Your task to perform on an android device: Open maps Image 0: 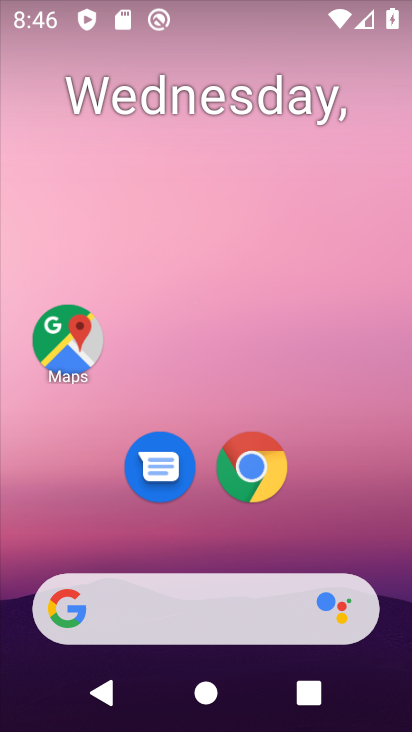
Step 0: drag from (272, 7) to (254, 529)
Your task to perform on an android device: Open maps Image 1: 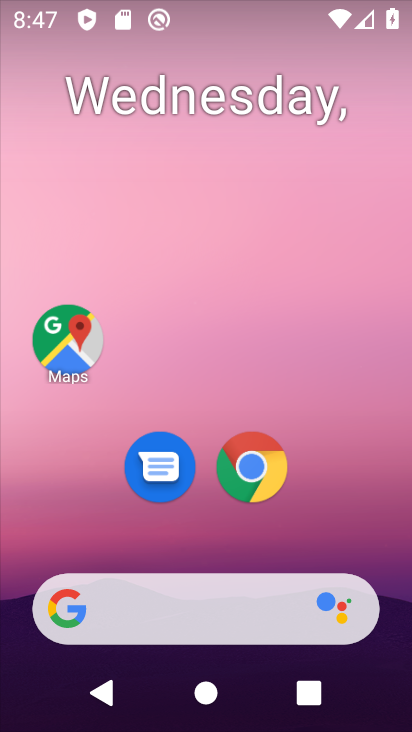
Step 1: drag from (321, 368) to (300, 30)
Your task to perform on an android device: Open maps Image 2: 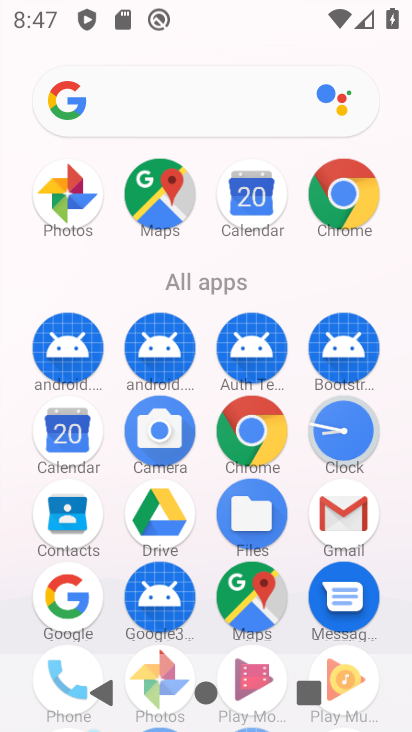
Step 2: click (167, 195)
Your task to perform on an android device: Open maps Image 3: 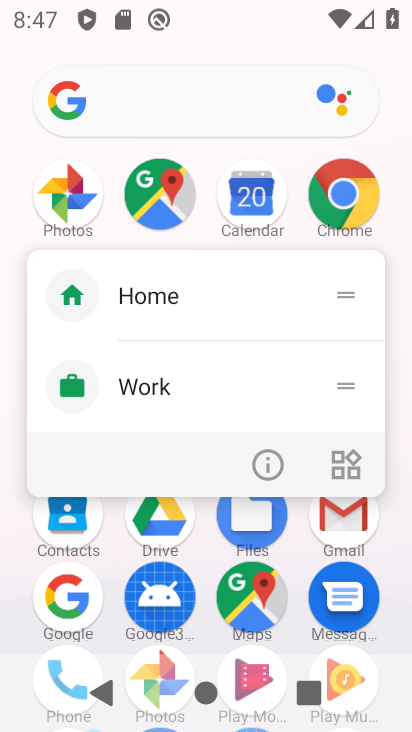
Step 3: click (164, 201)
Your task to perform on an android device: Open maps Image 4: 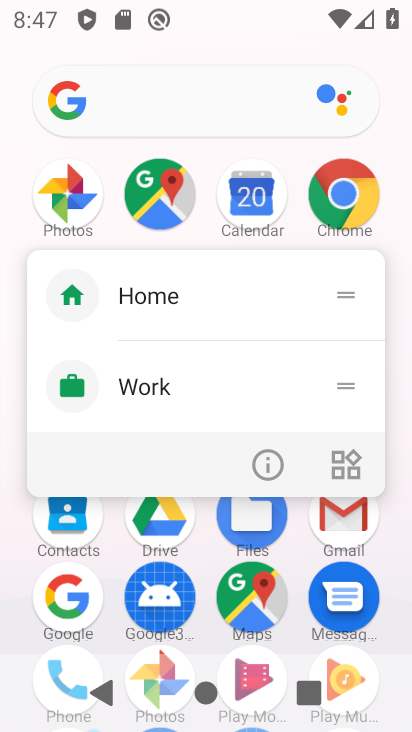
Step 4: click (239, 594)
Your task to perform on an android device: Open maps Image 5: 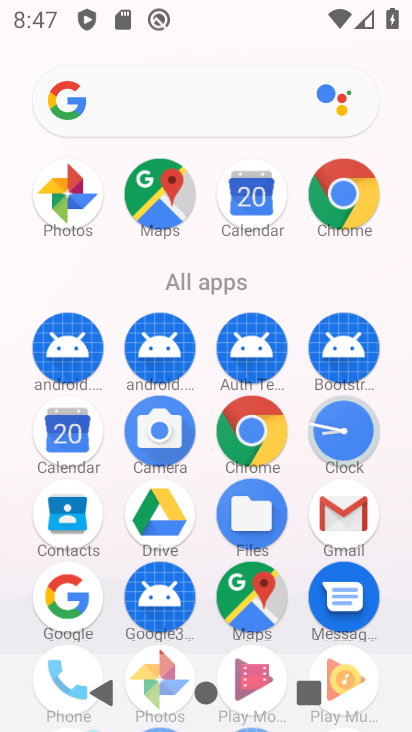
Step 5: click (250, 600)
Your task to perform on an android device: Open maps Image 6: 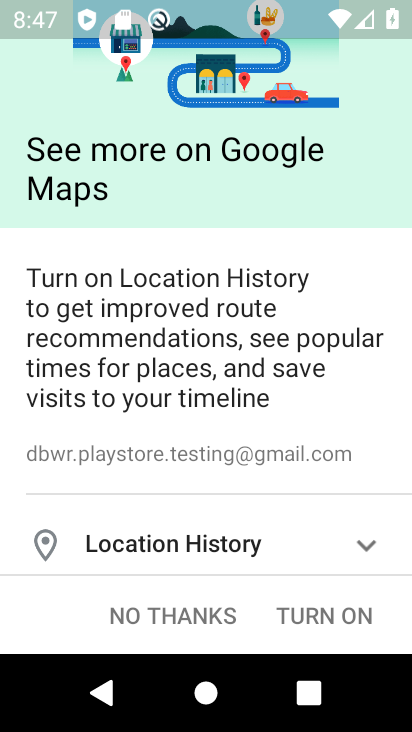
Step 6: click (199, 617)
Your task to perform on an android device: Open maps Image 7: 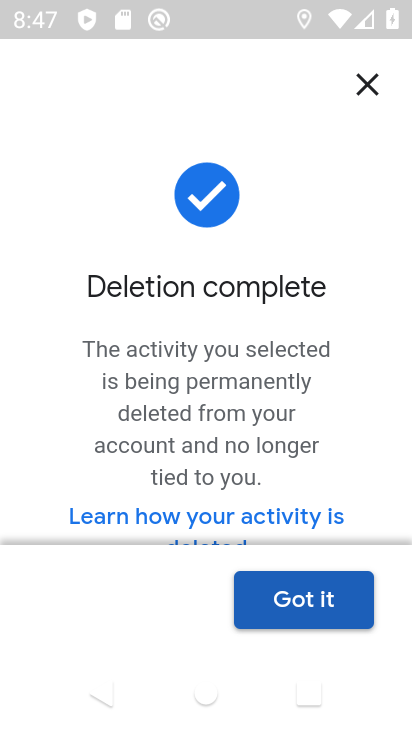
Step 7: click (362, 86)
Your task to perform on an android device: Open maps Image 8: 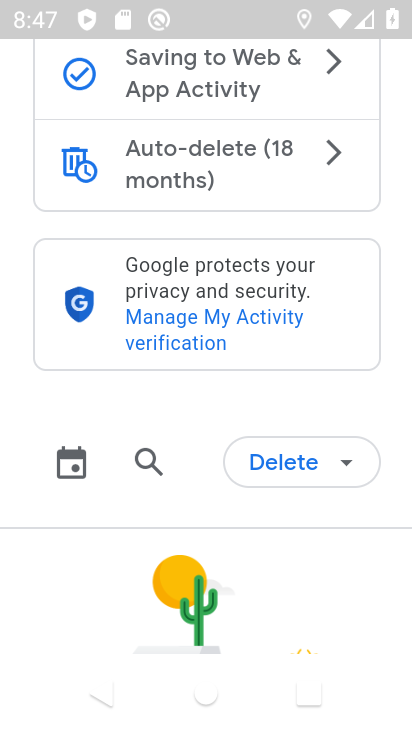
Step 8: press back button
Your task to perform on an android device: Open maps Image 9: 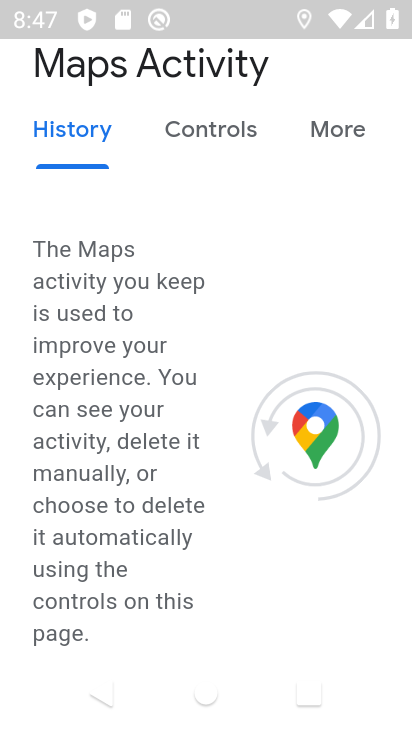
Step 9: drag from (243, 531) to (247, 0)
Your task to perform on an android device: Open maps Image 10: 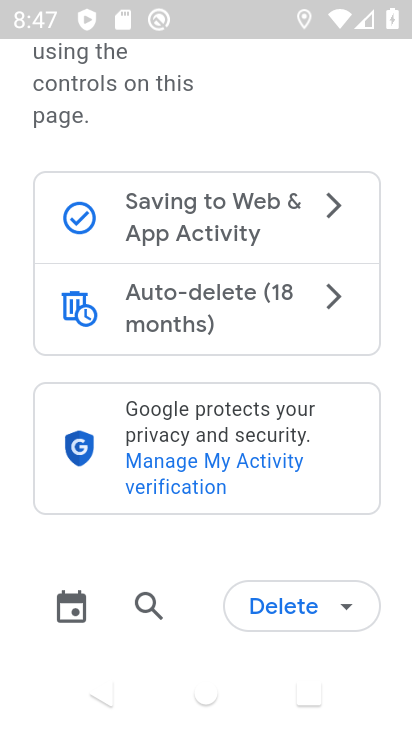
Step 10: press back button
Your task to perform on an android device: Open maps Image 11: 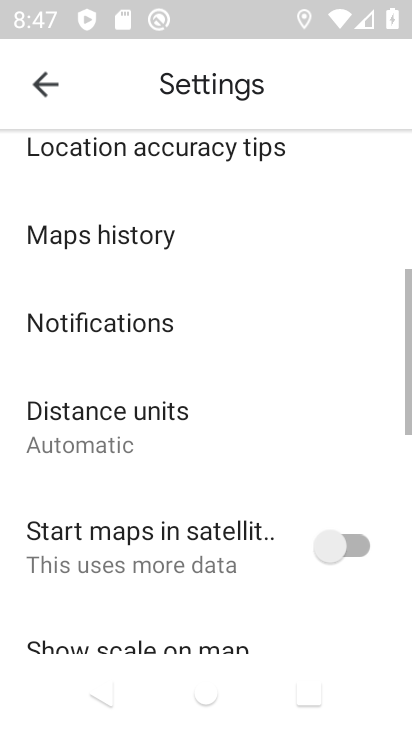
Step 11: press back button
Your task to perform on an android device: Open maps Image 12: 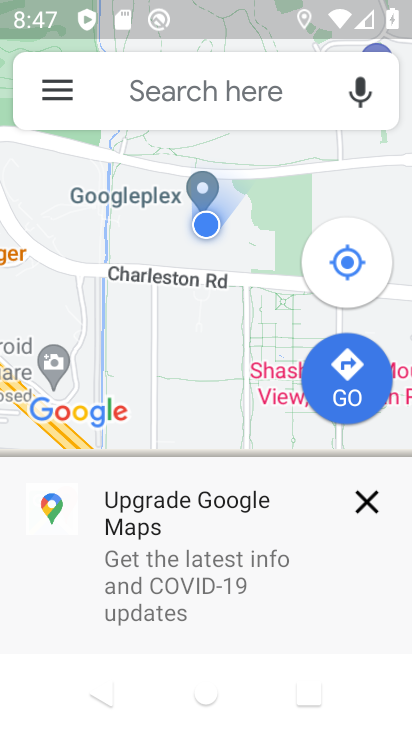
Step 12: press back button
Your task to perform on an android device: Open maps Image 13: 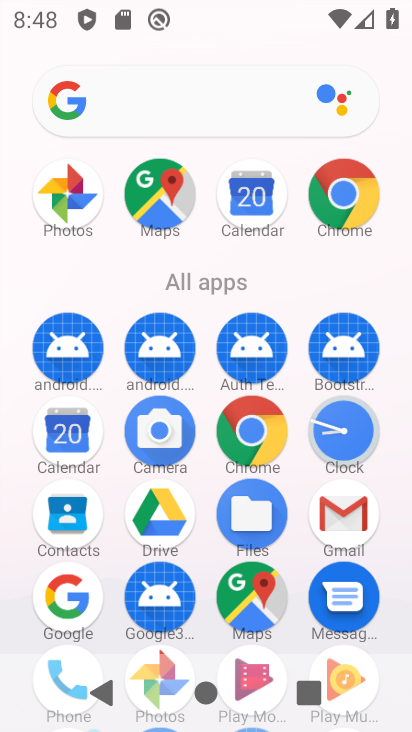
Step 13: click (258, 579)
Your task to perform on an android device: Open maps Image 14: 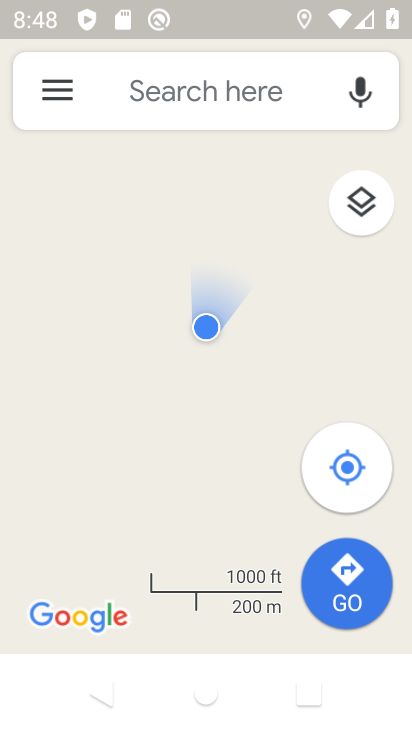
Step 14: click (68, 83)
Your task to perform on an android device: Open maps Image 15: 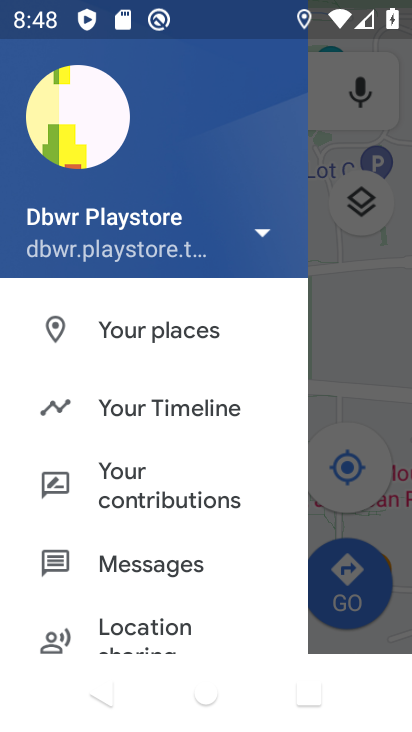
Step 15: task complete